Your task to perform on an android device: move an email to a new category in the gmail app Image 0: 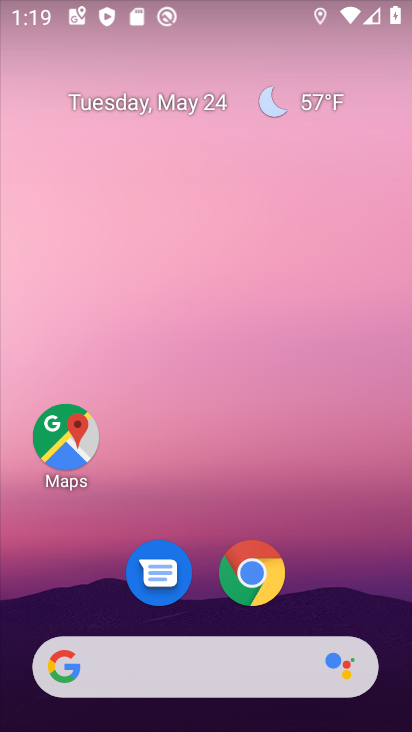
Step 0: drag from (346, 592) to (354, 112)
Your task to perform on an android device: move an email to a new category in the gmail app Image 1: 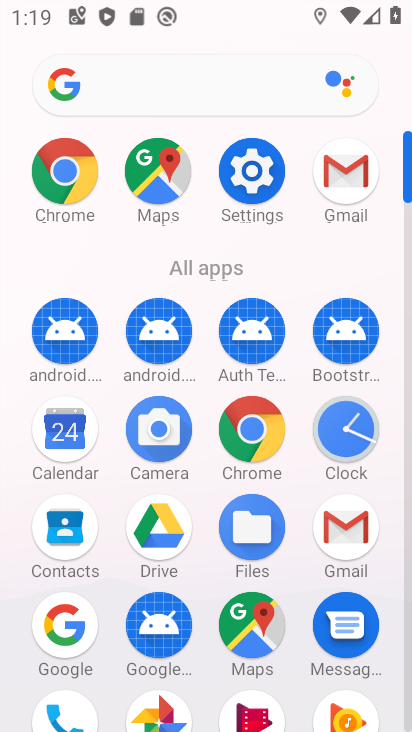
Step 1: click (366, 175)
Your task to perform on an android device: move an email to a new category in the gmail app Image 2: 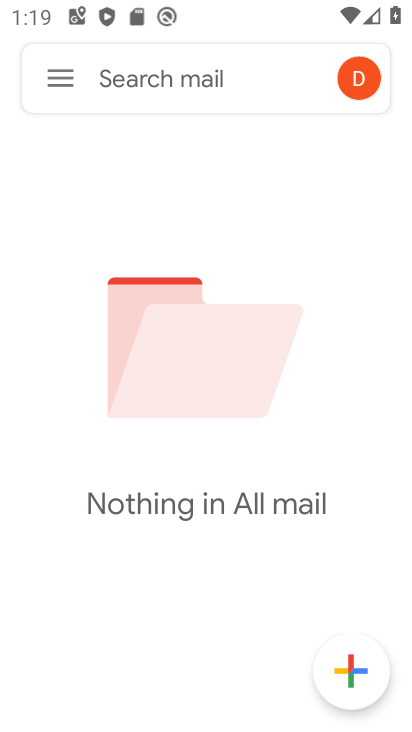
Step 2: click (57, 87)
Your task to perform on an android device: move an email to a new category in the gmail app Image 3: 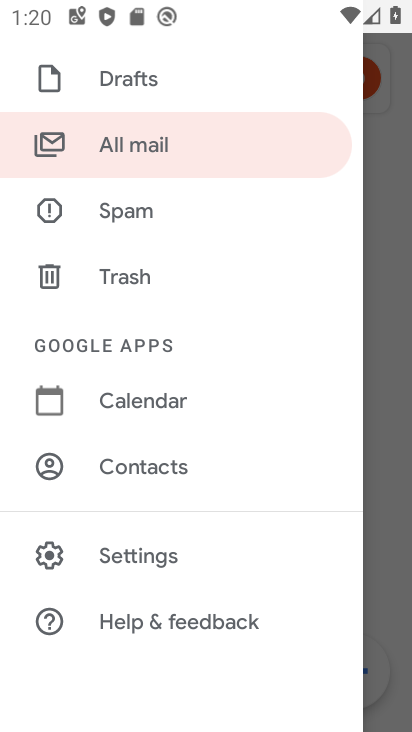
Step 3: click (154, 554)
Your task to perform on an android device: move an email to a new category in the gmail app Image 4: 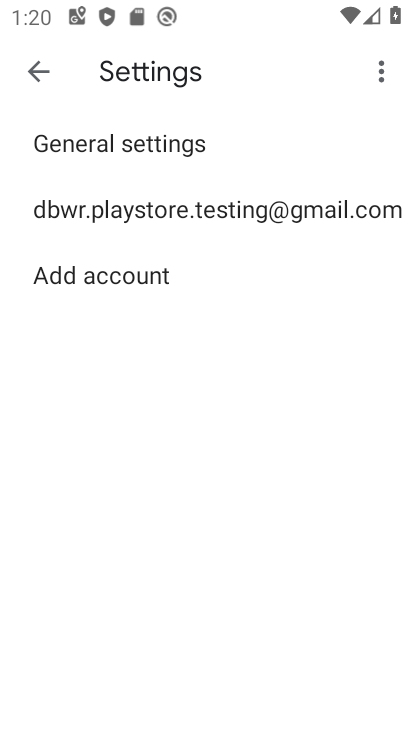
Step 4: click (203, 221)
Your task to perform on an android device: move an email to a new category in the gmail app Image 5: 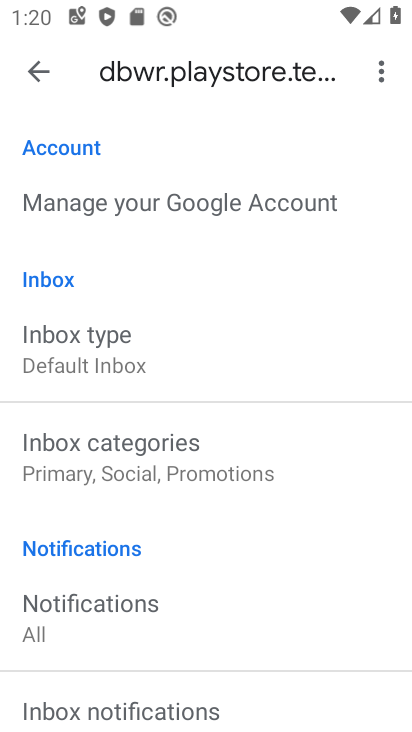
Step 5: click (27, 88)
Your task to perform on an android device: move an email to a new category in the gmail app Image 6: 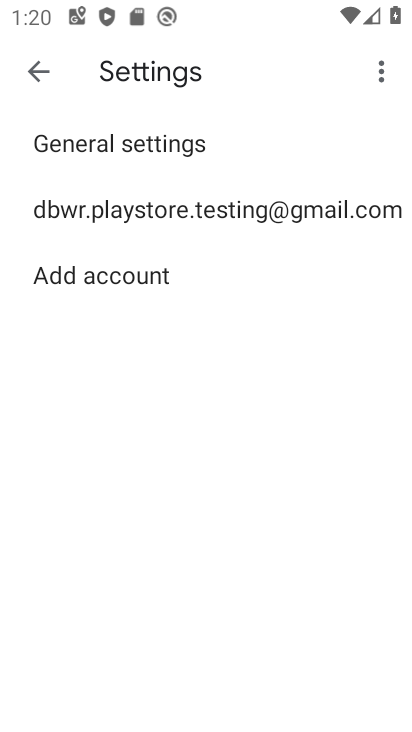
Step 6: click (27, 79)
Your task to perform on an android device: move an email to a new category in the gmail app Image 7: 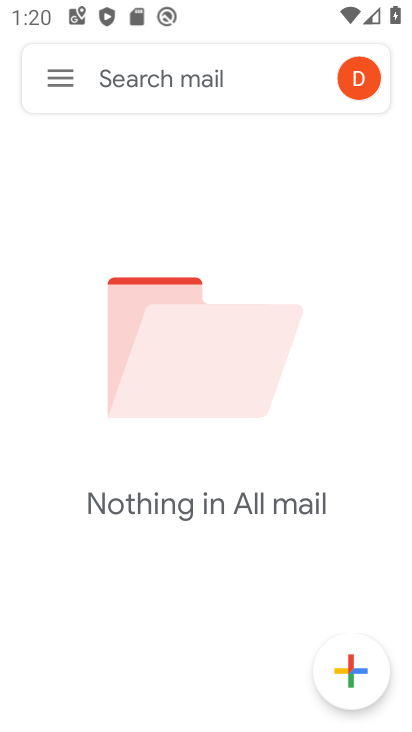
Step 7: click (37, 73)
Your task to perform on an android device: move an email to a new category in the gmail app Image 8: 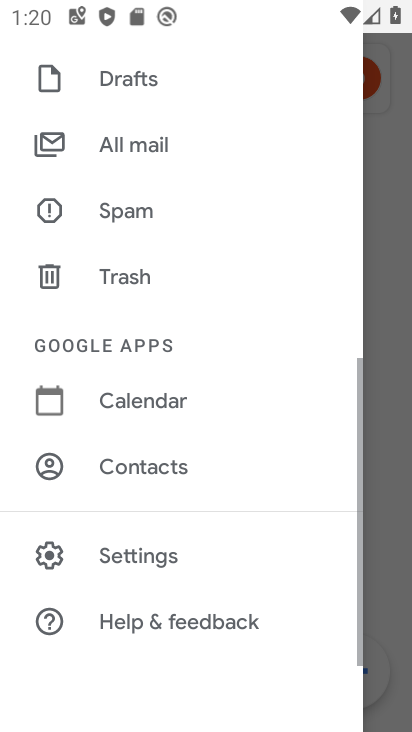
Step 8: click (161, 157)
Your task to perform on an android device: move an email to a new category in the gmail app Image 9: 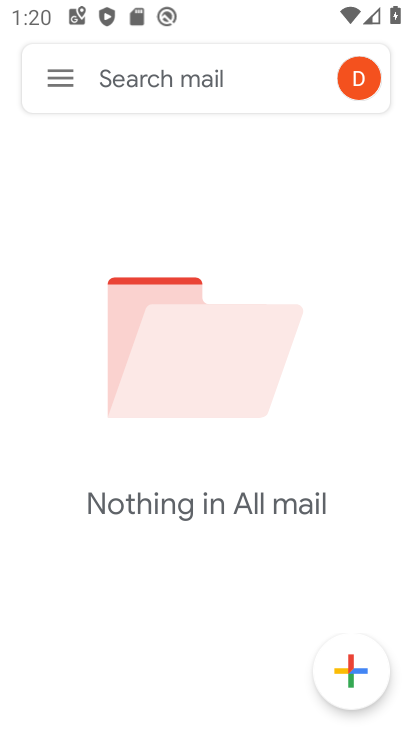
Step 9: task complete